Your task to perform on an android device: find photos in the google photos app Image 0: 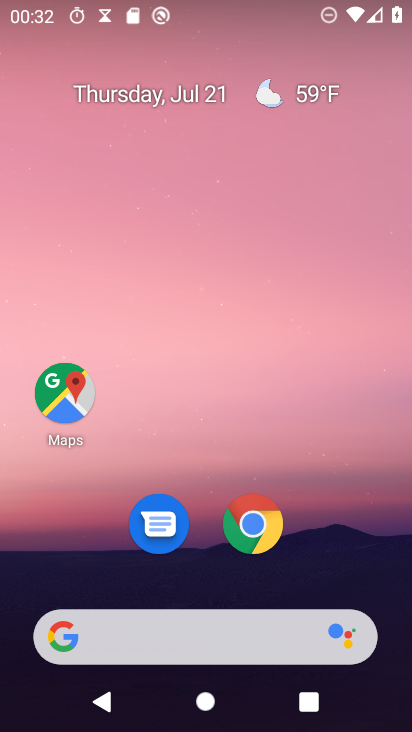
Step 0: drag from (237, 620) to (286, 79)
Your task to perform on an android device: find photos in the google photos app Image 1: 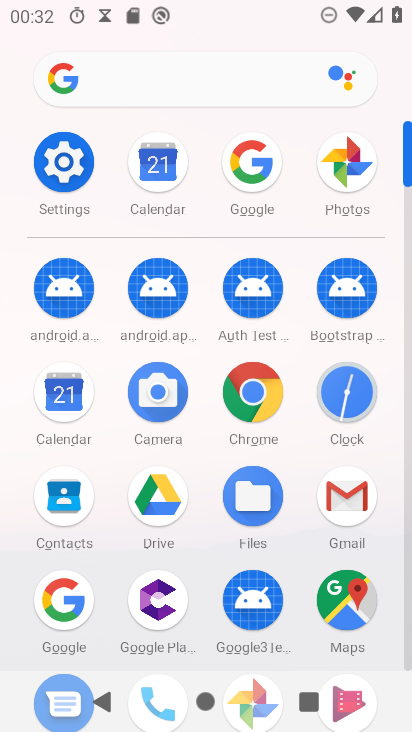
Step 1: click (340, 163)
Your task to perform on an android device: find photos in the google photos app Image 2: 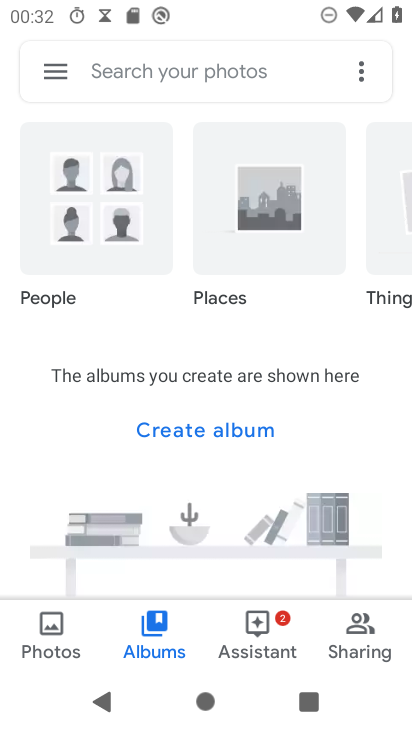
Step 2: click (61, 645)
Your task to perform on an android device: find photos in the google photos app Image 3: 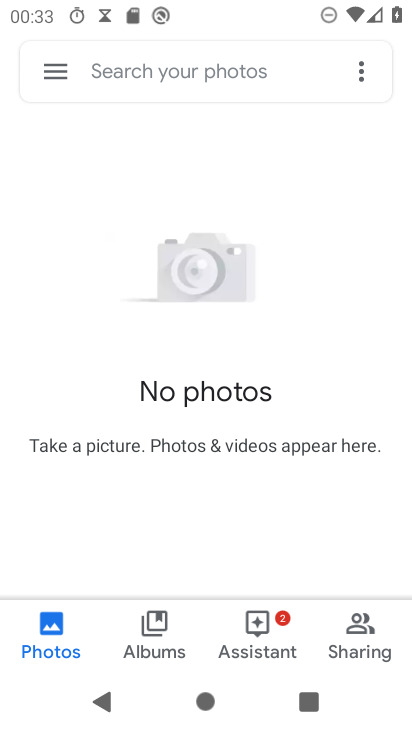
Step 3: task complete